Your task to perform on an android device: Search for vegetarian restaurants on Maps Image 0: 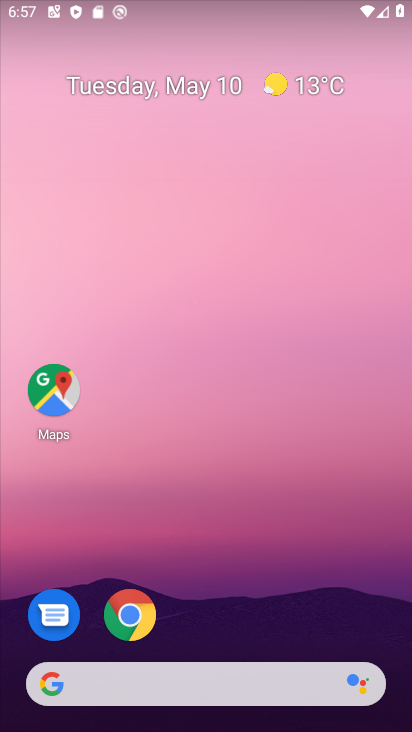
Step 0: drag from (249, 569) to (232, 167)
Your task to perform on an android device: Search for vegetarian restaurants on Maps Image 1: 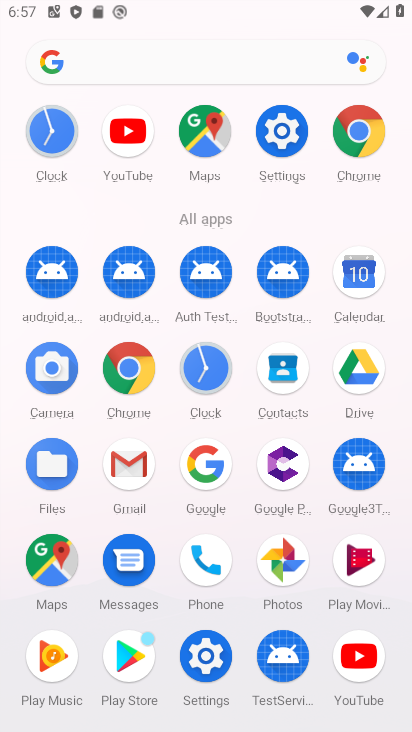
Step 1: click (211, 134)
Your task to perform on an android device: Search for vegetarian restaurants on Maps Image 2: 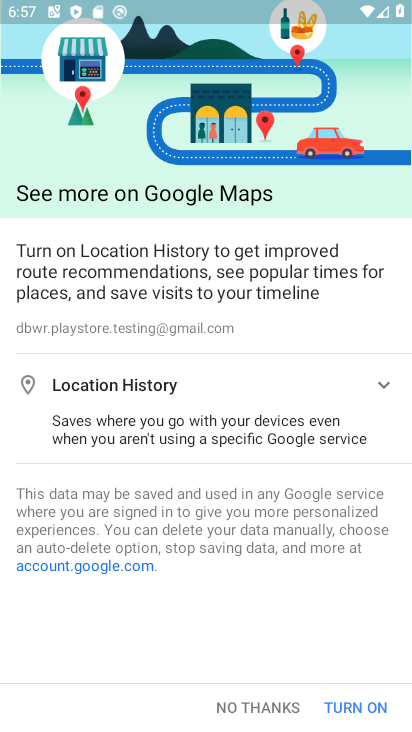
Step 2: click (252, 710)
Your task to perform on an android device: Search for vegetarian restaurants on Maps Image 3: 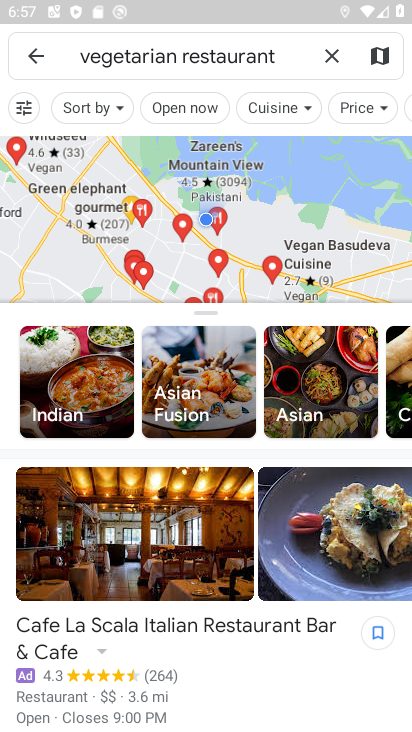
Step 3: task complete